Your task to perform on an android device: remove spam from my inbox in the gmail app Image 0: 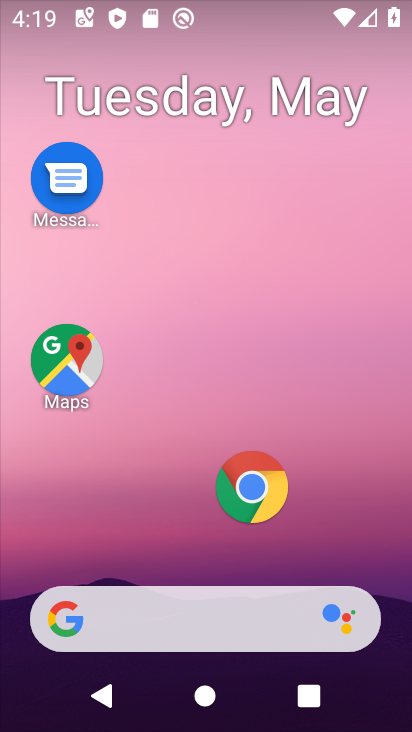
Step 0: drag from (173, 508) to (244, 1)
Your task to perform on an android device: remove spam from my inbox in the gmail app Image 1: 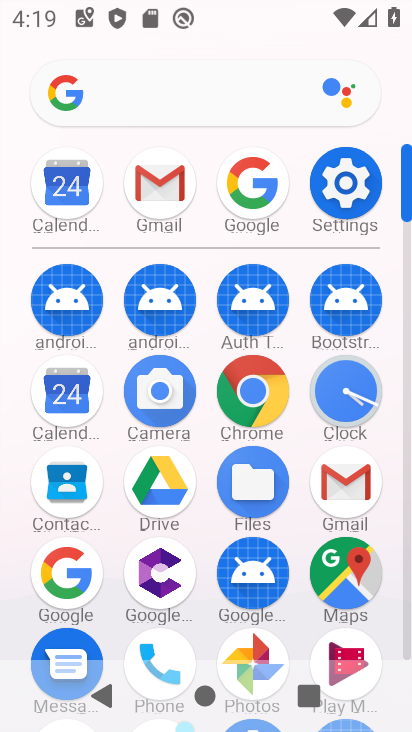
Step 1: click (149, 227)
Your task to perform on an android device: remove spam from my inbox in the gmail app Image 2: 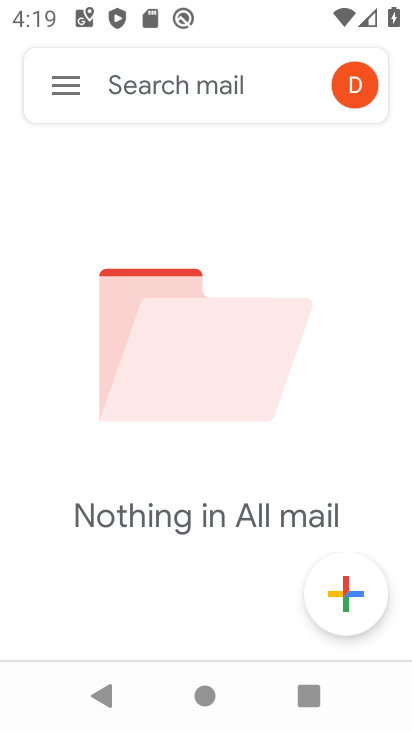
Step 2: click (67, 93)
Your task to perform on an android device: remove spam from my inbox in the gmail app Image 3: 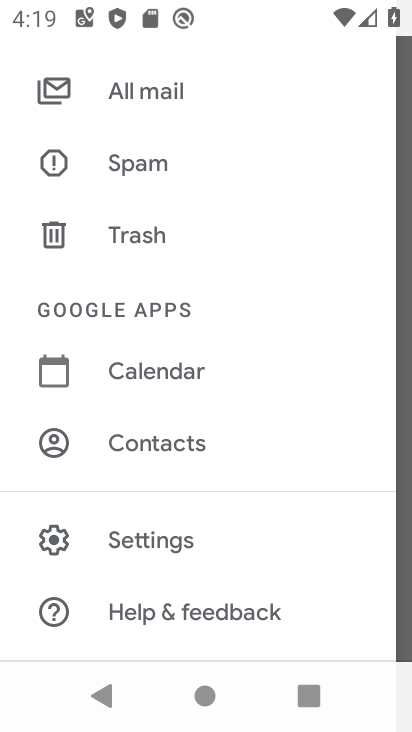
Step 3: click (137, 172)
Your task to perform on an android device: remove spam from my inbox in the gmail app Image 4: 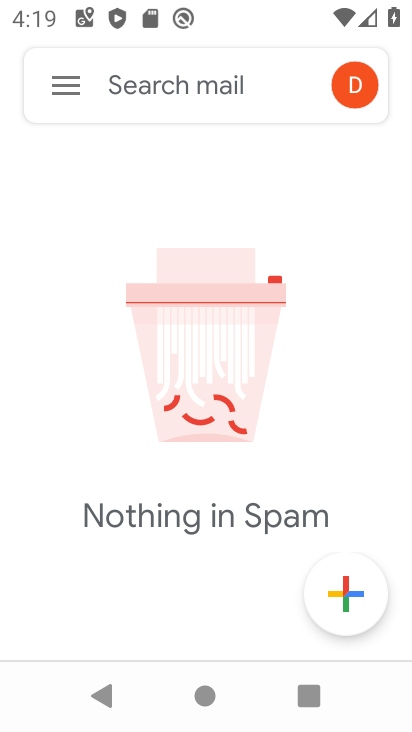
Step 4: task complete